Your task to perform on an android device: Check the weather Image 0: 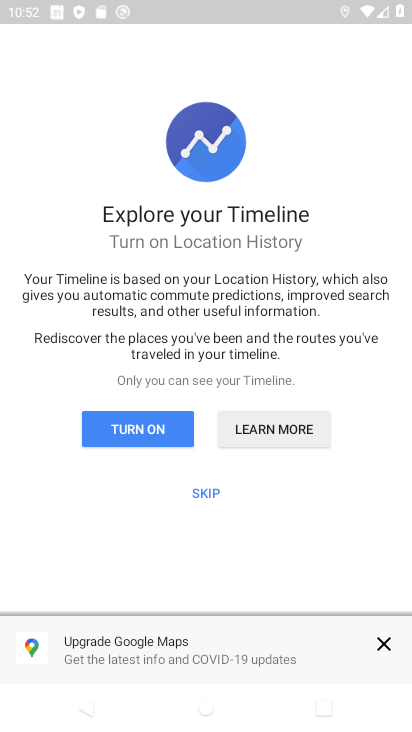
Step 0: press home button
Your task to perform on an android device: Check the weather Image 1: 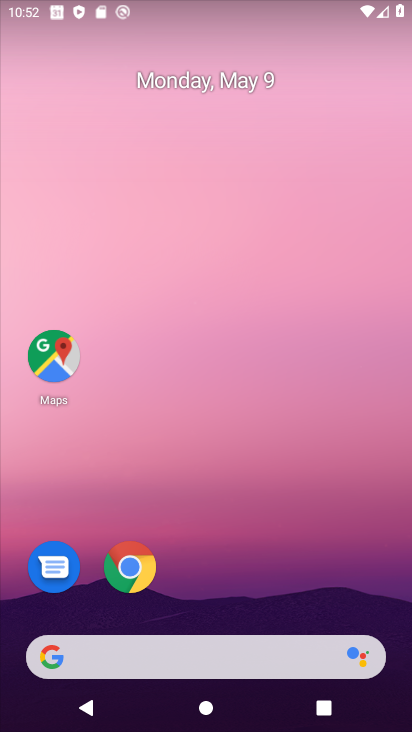
Step 1: click (168, 671)
Your task to perform on an android device: Check the weather Image 2: 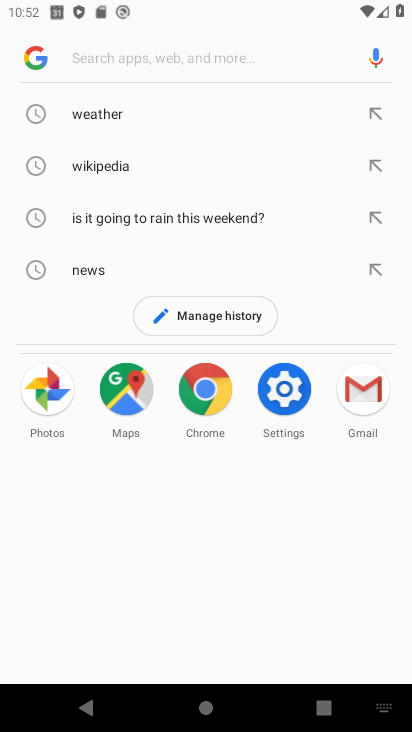
Step 2: click (146, 115)
Your task to perform on an android device: Check the weather Image 3: 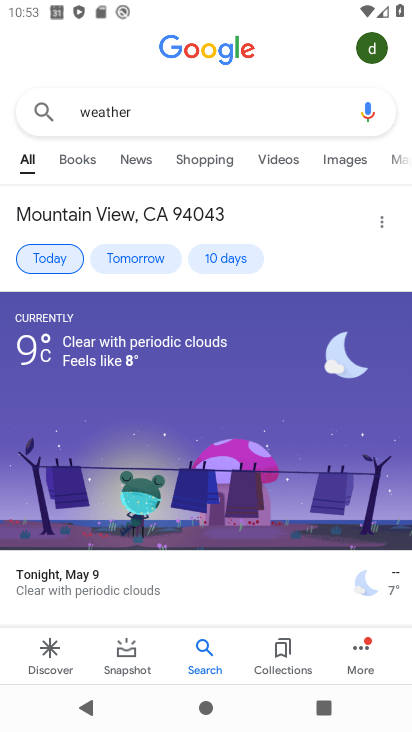
Step 3: task complete